Your task to perform on an android device: Check the weather Image 0: 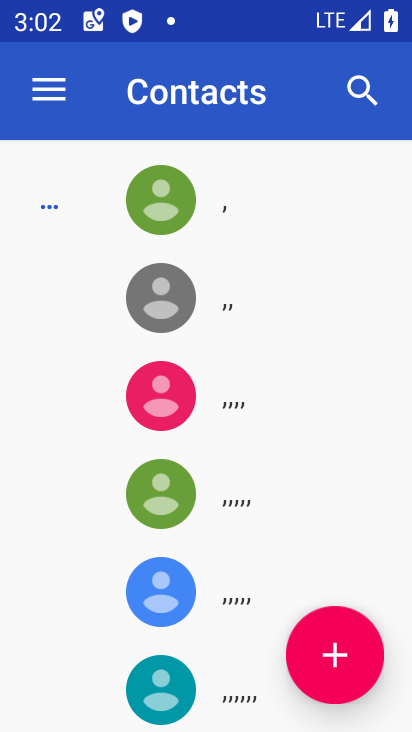
Step 0: press home button
Your task to perform on an android device: Check the weather Image 1: 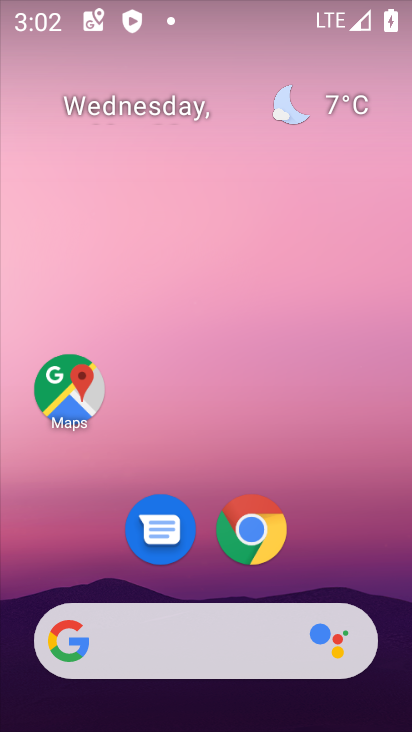
Step 1: click (337, 112)
Your task to perform on an android device: Check the weather Image 2: 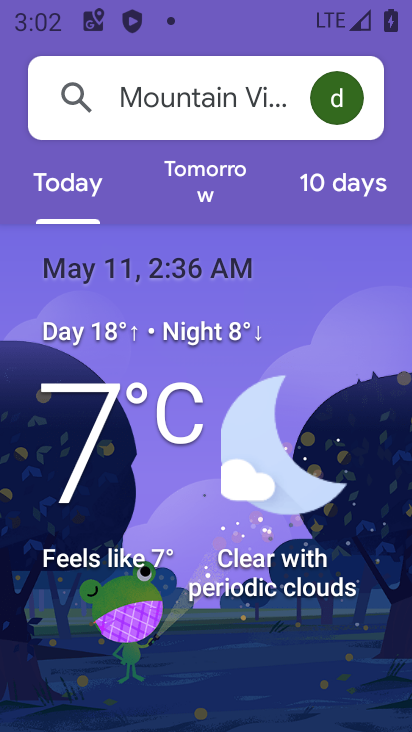
Step 2: press home button
Your task to perform on an android device: Check the weather Image 3: 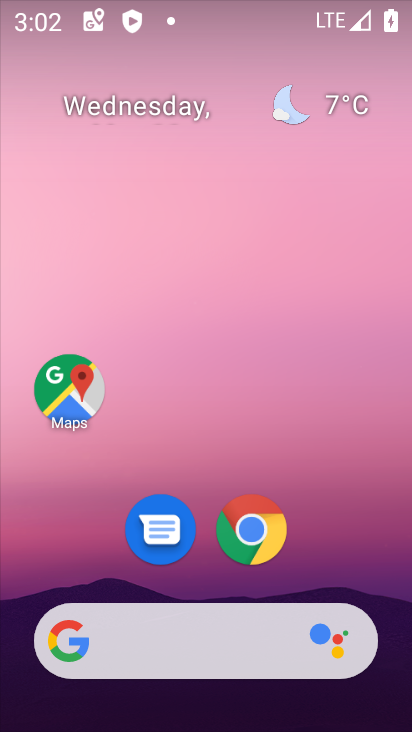
Step 3: click (334, 118)
Your task to perform on an android device: Check the weather Image 4: 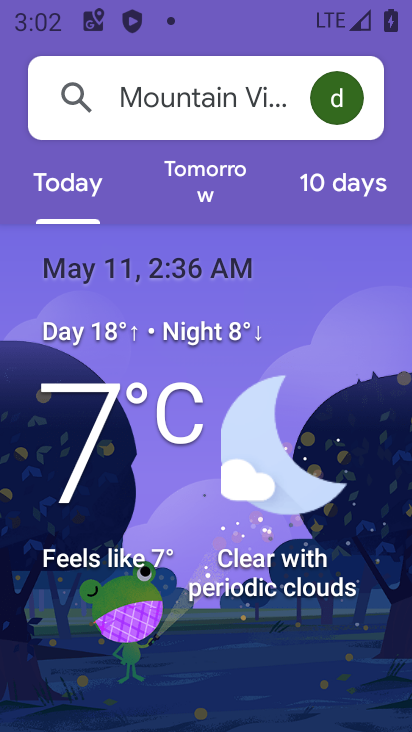
Step 4: task complete